Your task to perform on an android device: turn on bluetooth scan Image 0: 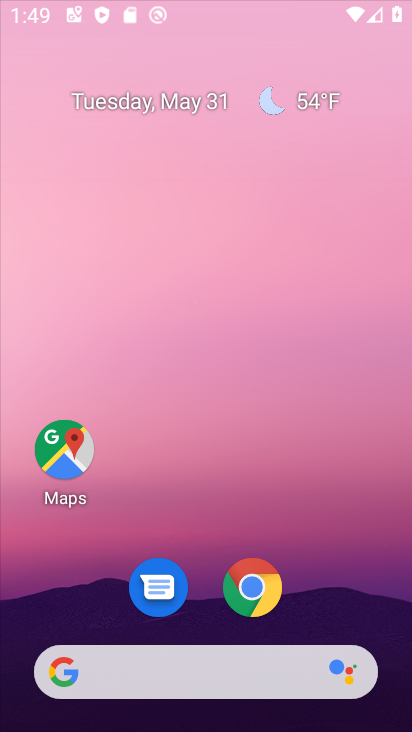
Step 0: drag from (165, 616) to (202, 247)
Your task to perform on an android device: turn on bluetooth scan Image 1: 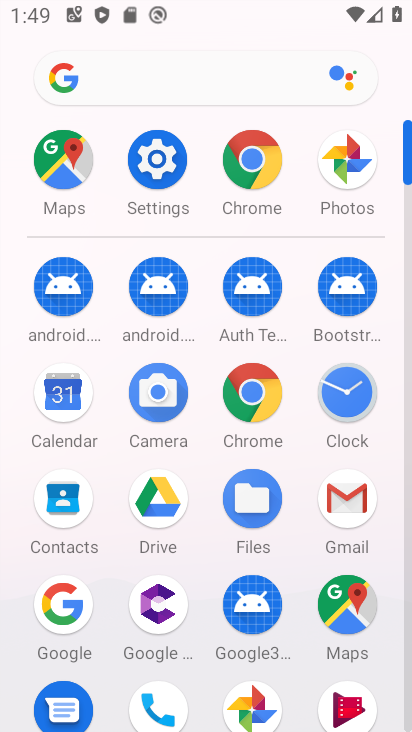
Step 1: click (159, 172)
Your task to perform on an android device: turn on bluetooth scan Image 2: 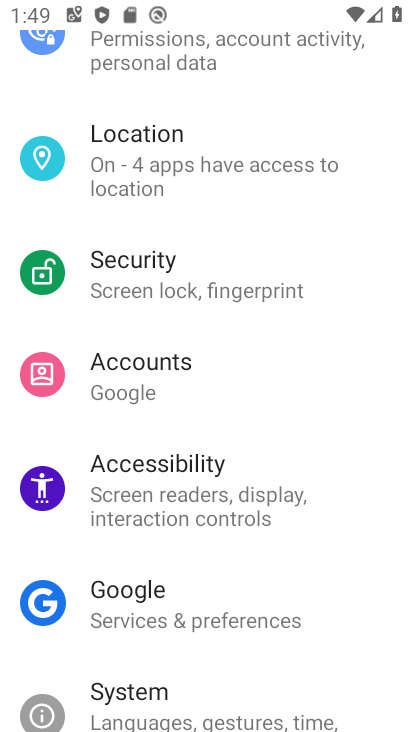
Step 2: click (140, 122)
Your task to perform on an android device: turn on bluetooth scan Image 3: 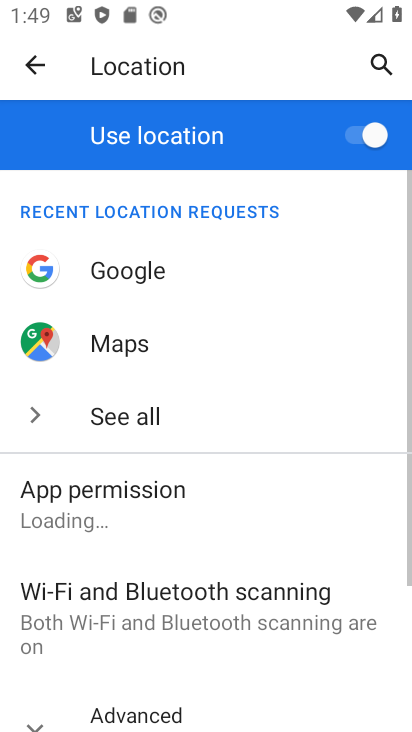
Step 3: click (216, 577)
Your task to perform on an android device: turn on bluetooth scan Image 4: 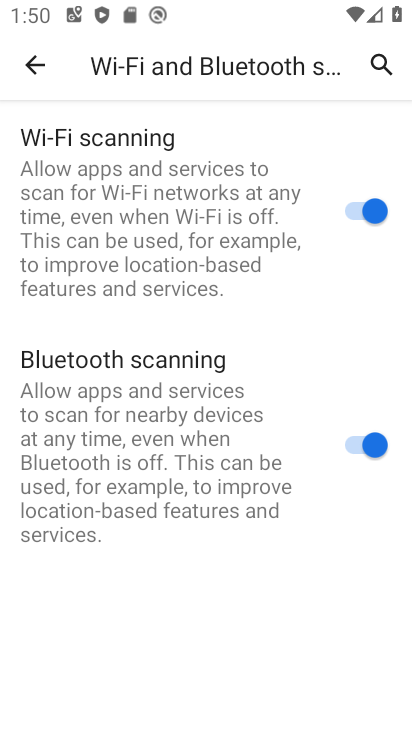
Step 4: task complete